Your task to perform on an android device: Open the map Image 0: 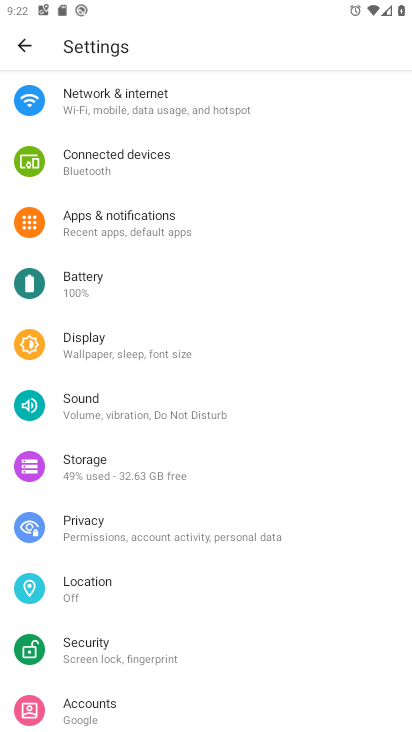
Step 0: press home button
Your task to perform on an android device: Open the map Image 1: 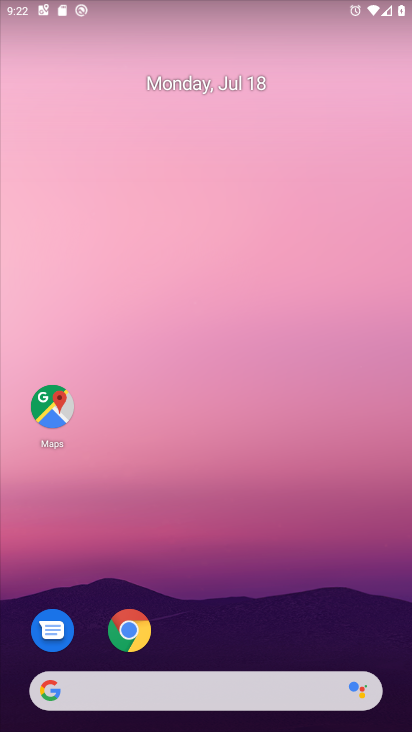
Step 1: click (51, 395)
Your task to perform on an android device: Open the map Image 2: 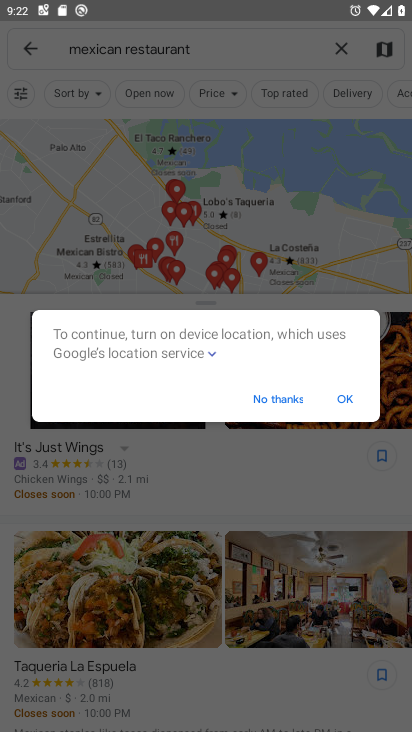
Step 2: task complete